Your task to perform on an android device: Open calendar and show me the second week of next month Image 0: 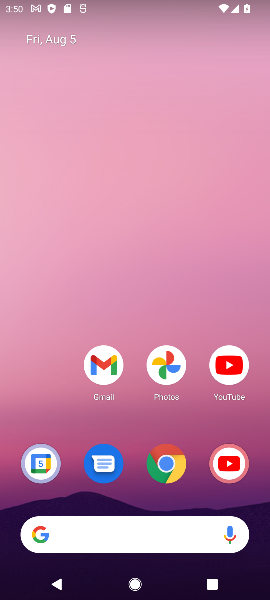
Step 0: drag from (126, 495) to (177, 130)
Your task to perform on an android device: Open calendar and show me the second week of next month Image 1: 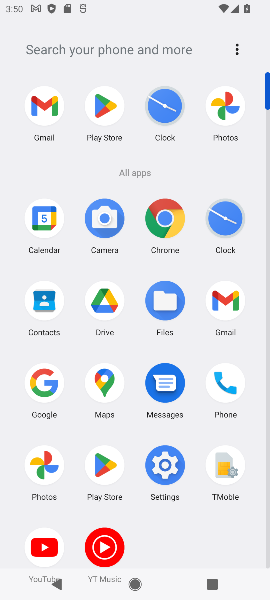
Step 1: click (37, 217)
Your task to perform on an android device: Open calendar and show me the second week of next month Image 2: 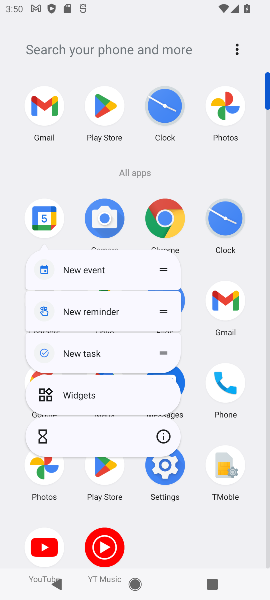
Step 2: click (163, 437)
Your task to perform on an android device: Open calendar and show me the second week of next month Image 3: 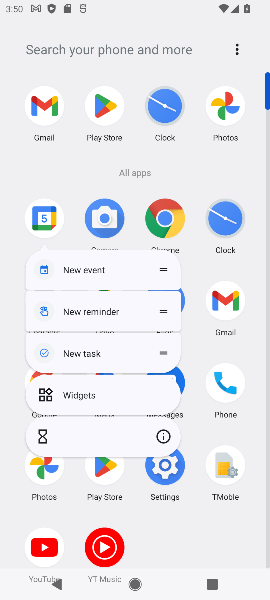
Step 3: click (160, 442)
Your task to perform on an android device: Open calendar and show me the second week of next month Image 4: 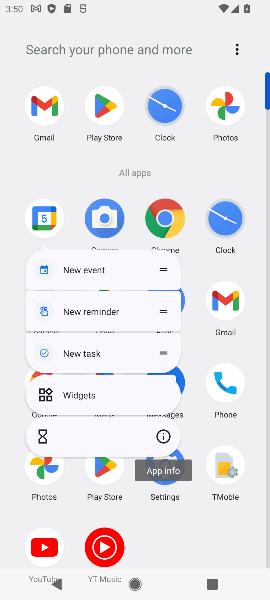
Step 4: click (160, 442)
Your task to perform on an android device: Open calendar and show me the second week of next month Image 5: 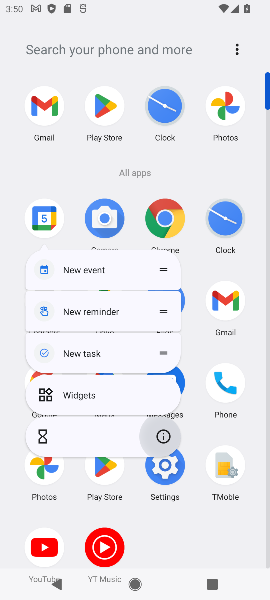
Step 5: click (159, 441)
Your task to perform on an android device: Open calendar and show me the second week of next month Image 6: 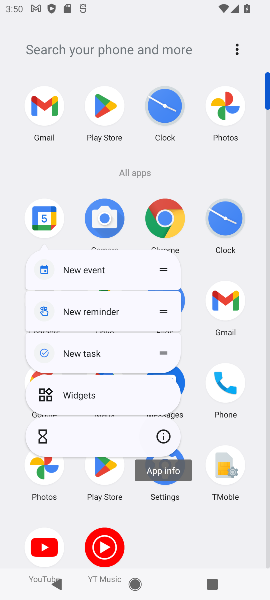
Step 6: click (157, 437)
Your task to perform on an android device: Open calendar and show me the second week of next month Image 7: 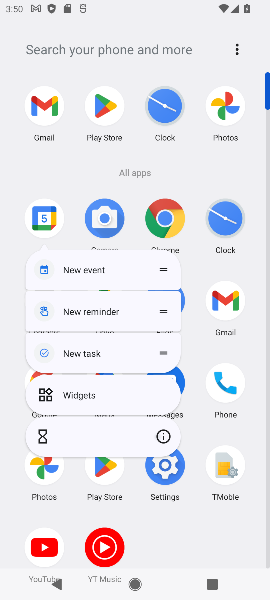
Step 7: click (157, 437)
Your task to perform on an android device: Open calendar and show me the second week of next month Image 8: 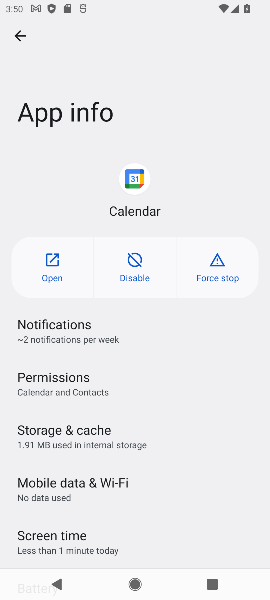
Step 8: click (49, 274)
Your task to perform on an android device: Open calendar and show me the second week of next month Image 9: 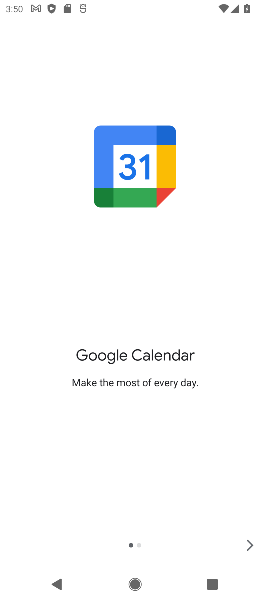
Step 9: drag from (143, 451) to (146, 201)
Your task to perform on an android device: Open calendar and show me the second week of next month Image 10: 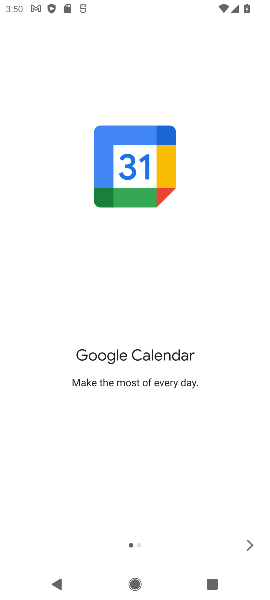
Step 10: click (253, 540)
Your task to perform on an android device: Open calendar and show me the second week of next month Image 11: 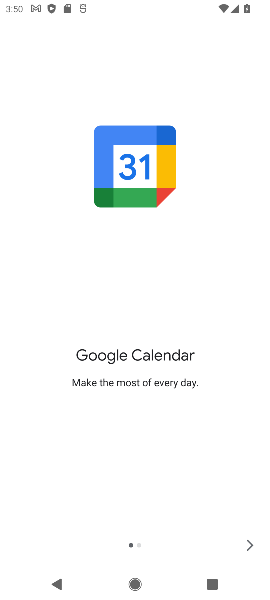
Step 11: click (245, 539)
Your task to perform on an android device: Open calendar and show me the second week of next month Image 12: 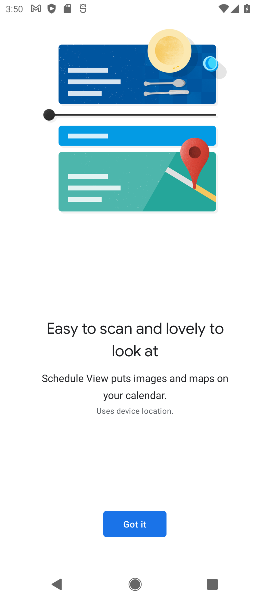
Step 12: click (127, 516)
Your task to perform on an android device: Open calendar and show me the second week of next month Image 13: 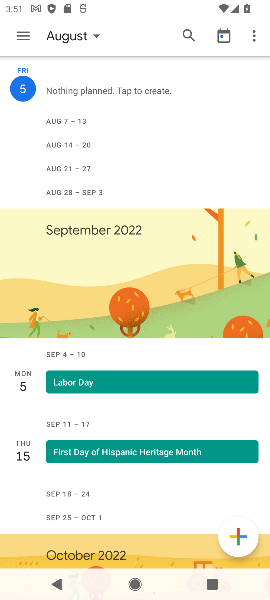
Step 13: click (82, 45)
Your task to perform on an android device: Open calendar and show me the second week of next month Image 14: 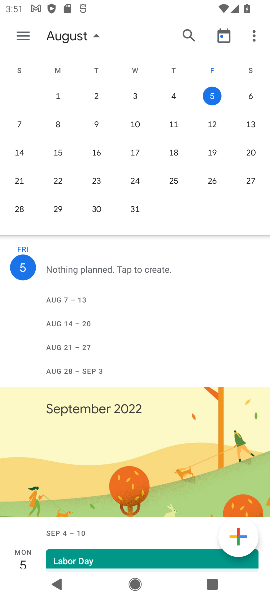
Step 14: drag from (204, 126) to (3, 105)
Your task to perform on an android device: Open calendar and show me the second week of next month Image 15: 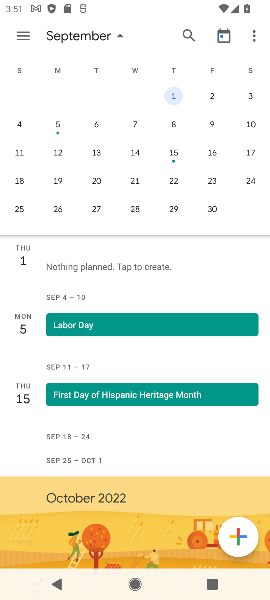
Step 15: click (166, 120)
Your task to perform on an android device: Open calendar and show me the second week of next month Image 16: 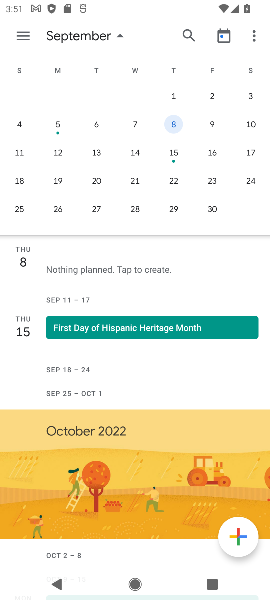
Step 16: task complete